Your task to perform on an android device: turn on data saver in the chrome app Image 0: 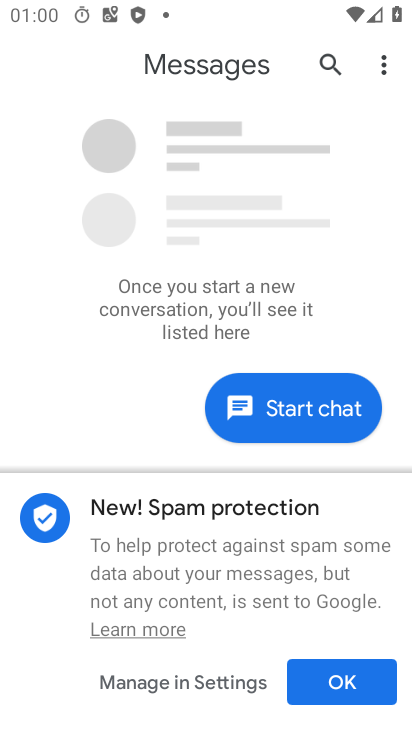
Step 0: press home button
Your task to perform on an android device: turn on data saver in the chrome app Image 1: 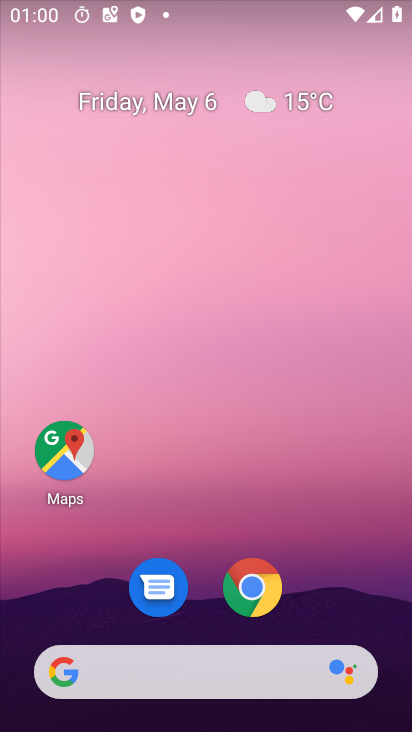
Step 1: click (260, 580)
Your task to perform on an android device: turn on data saver in the chrome app Image 2: 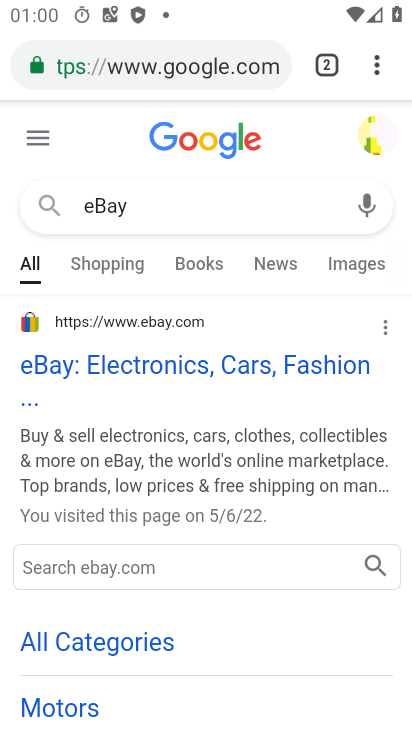
Step 2: click (370, 64)
Your task to perform on an android device: turn on data saver in the chrome app Image 3: 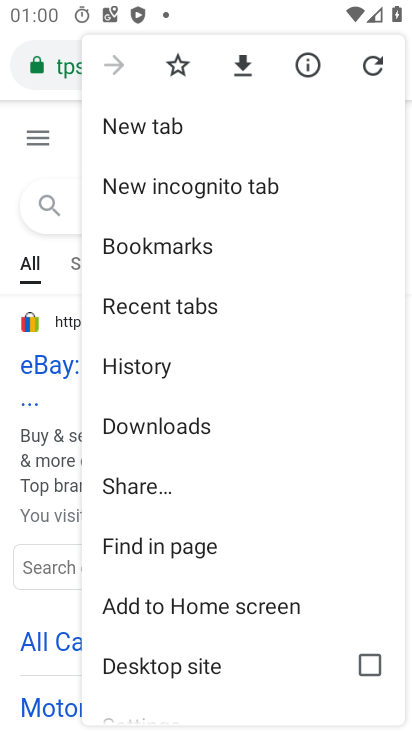
Step 3: drag from (280, 659) to (297, 369)
Your task to perform on an android device: turn on data saver in the chrome app Image 4: 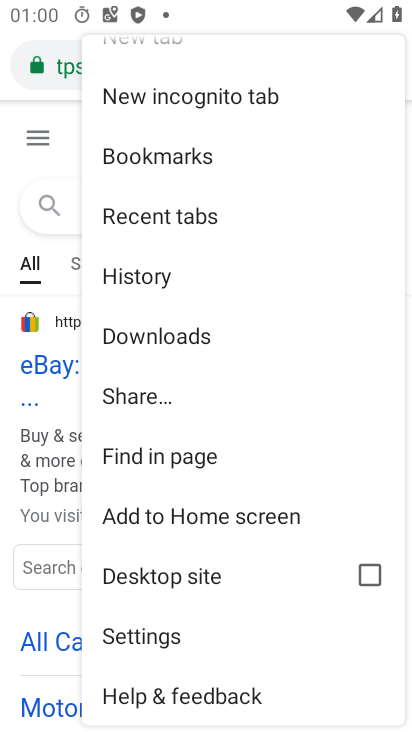
Step 4: drag from (306, 471) to (303, 253)
Your task to perform on an android device: turn on data saver in the chrome app Image 5: 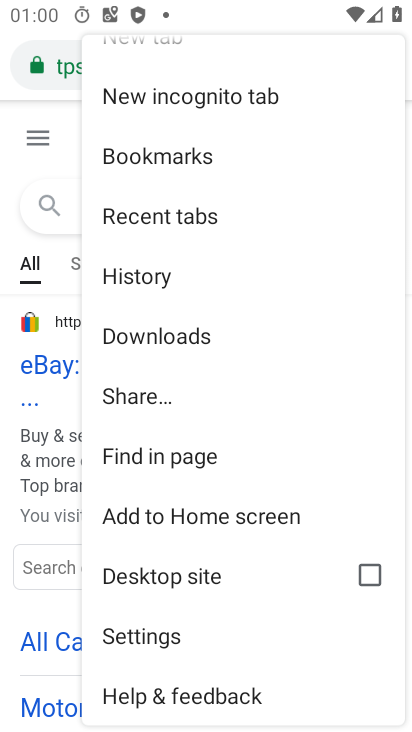
Step 5: click (145, 639)
Your task to perform on an android device: turn on data saver in the chrome app Image 6: 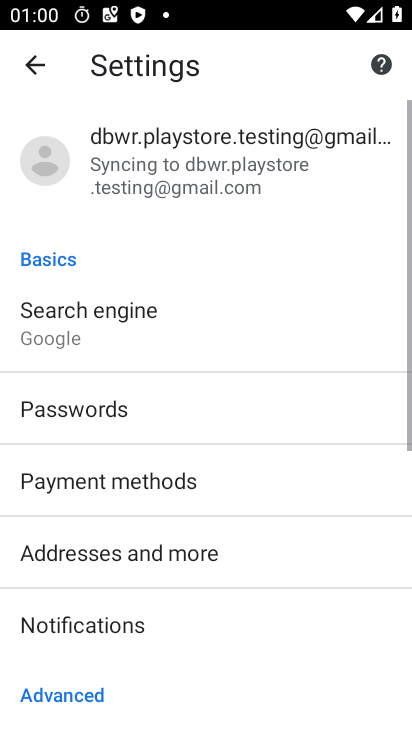
Step 6: drag from (236, 663) to (225, 339)
Your task to perform on an android device: turn on data saver in the chrome app Image 7: 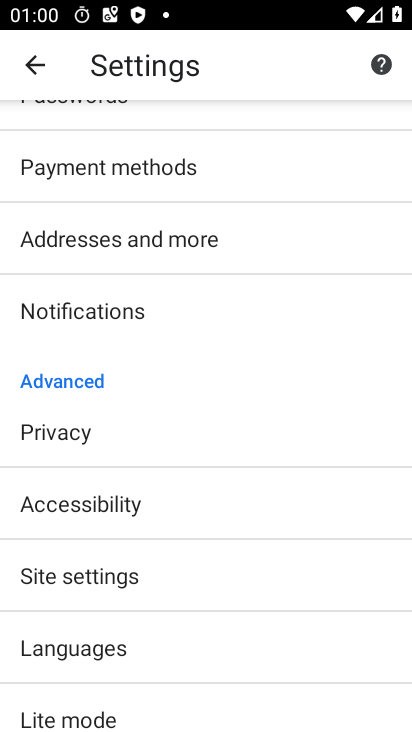
Step 7: drag from (189, 675) to (207, 363)
Your task to perform on an android device: turn on data saver in the chrome app Image 8: 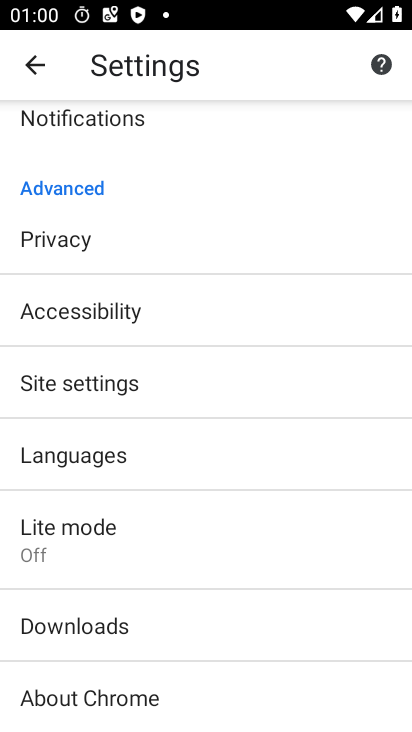
Step 8: click (72, 536)
Your task to perform on an android device: turn on data saver in the chrome app Image 9: 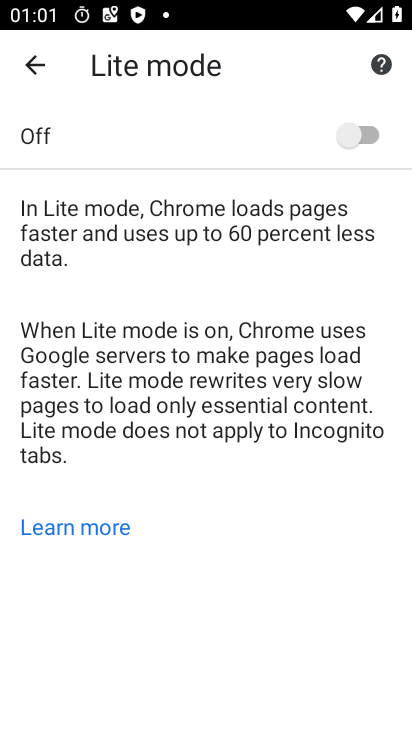
Step 9: click (364, 137)
Your task to perform on an android device: turn on data saver in the chrome app Image 10: 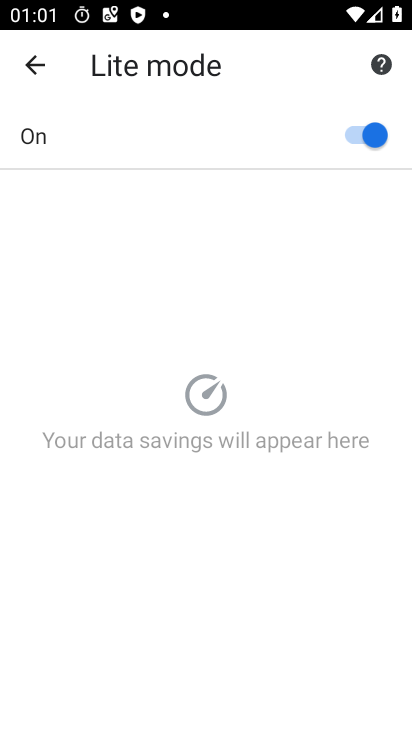
Step 10: task complete